Your task to perform on an android device: change the clock display to analog Image 0: 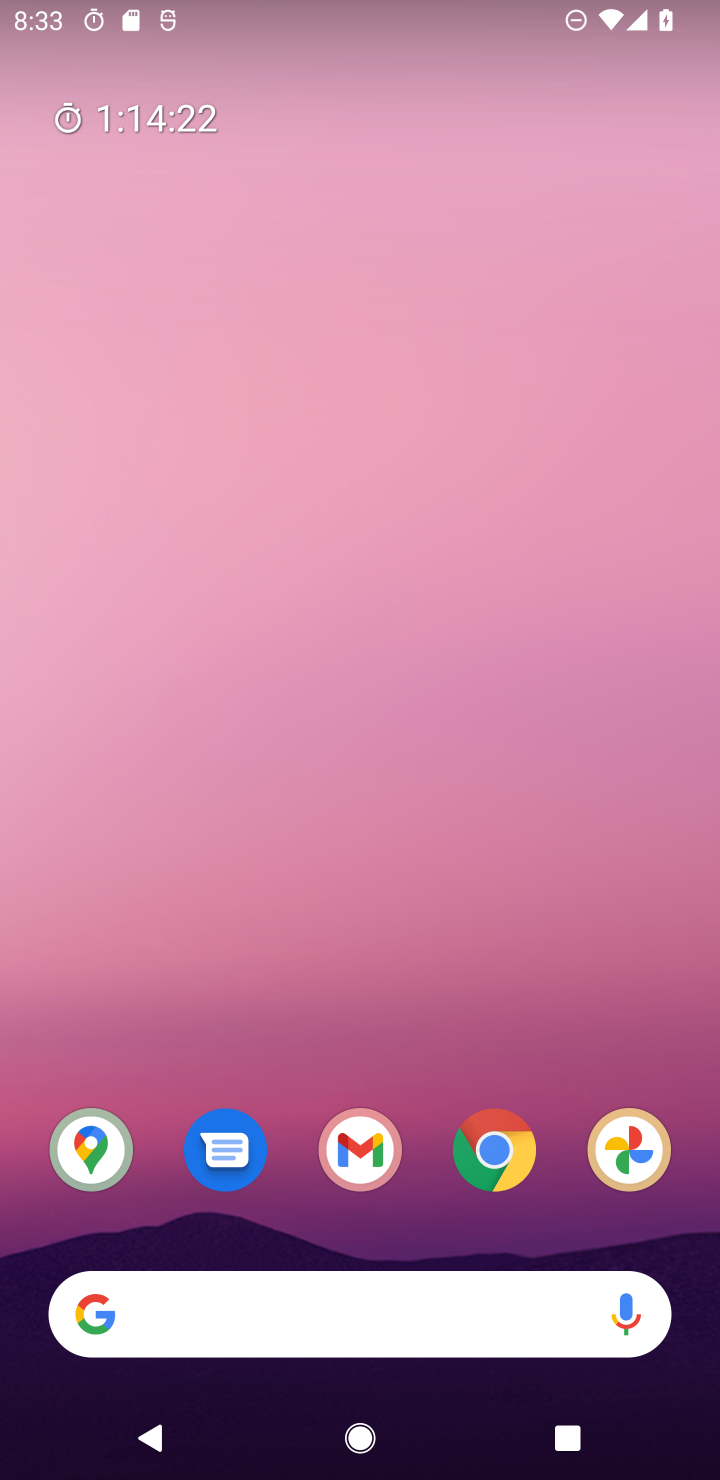
Step 0: drag from (456, 1335) to (302, 28)
Your task to perform on an android device: change the clock display to analog Image 1: 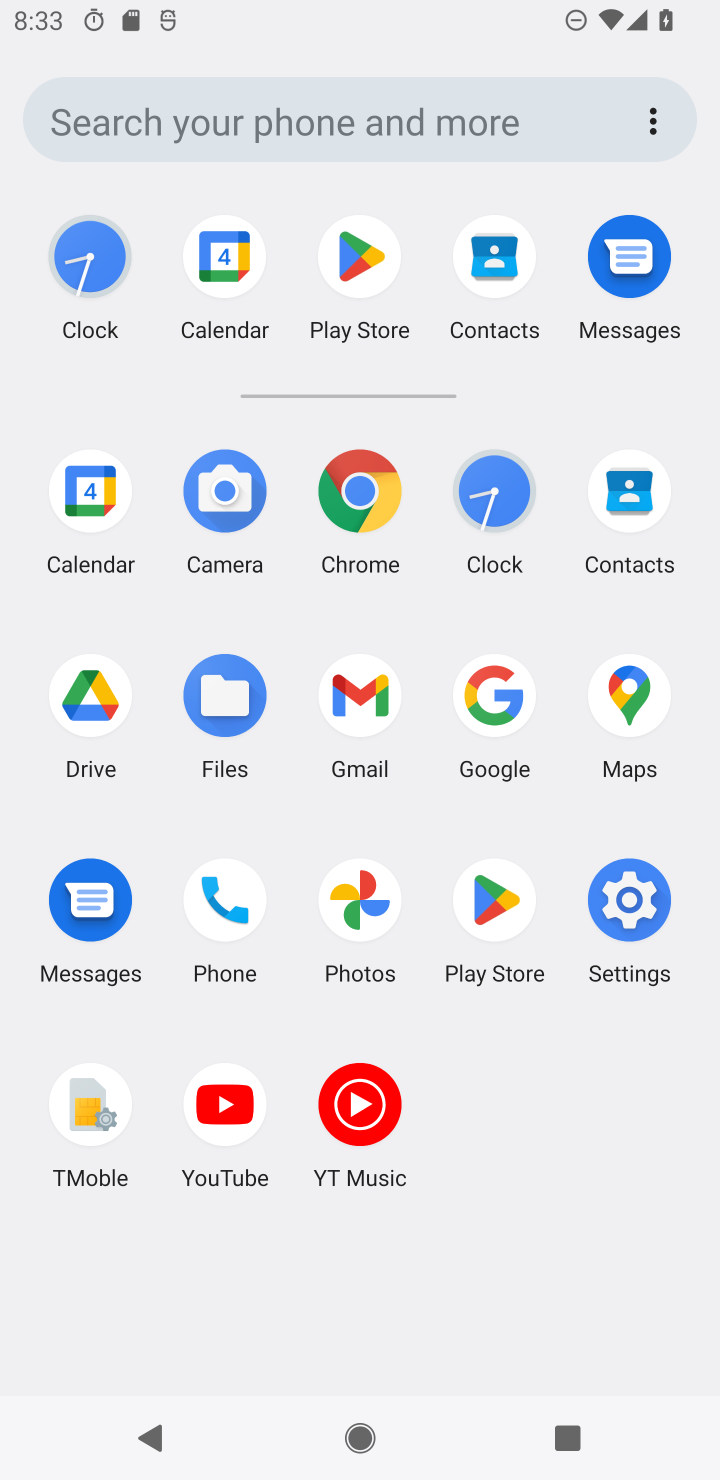
Step 1: click (628, 918)
Your task to perform on an android device: change the clock display to analog Image 2: 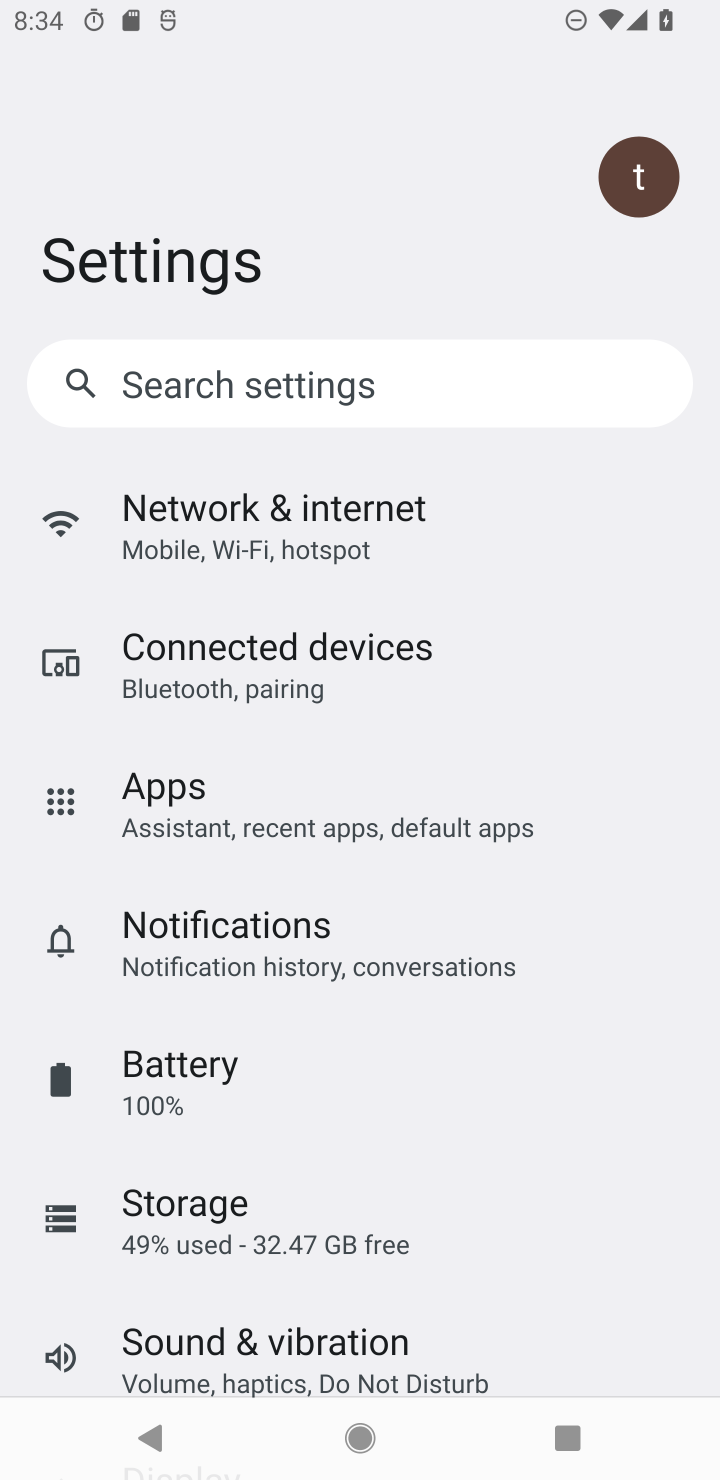
Step 2: press home button
Your task to perform on an android device: change the clock display to analog Image 3: 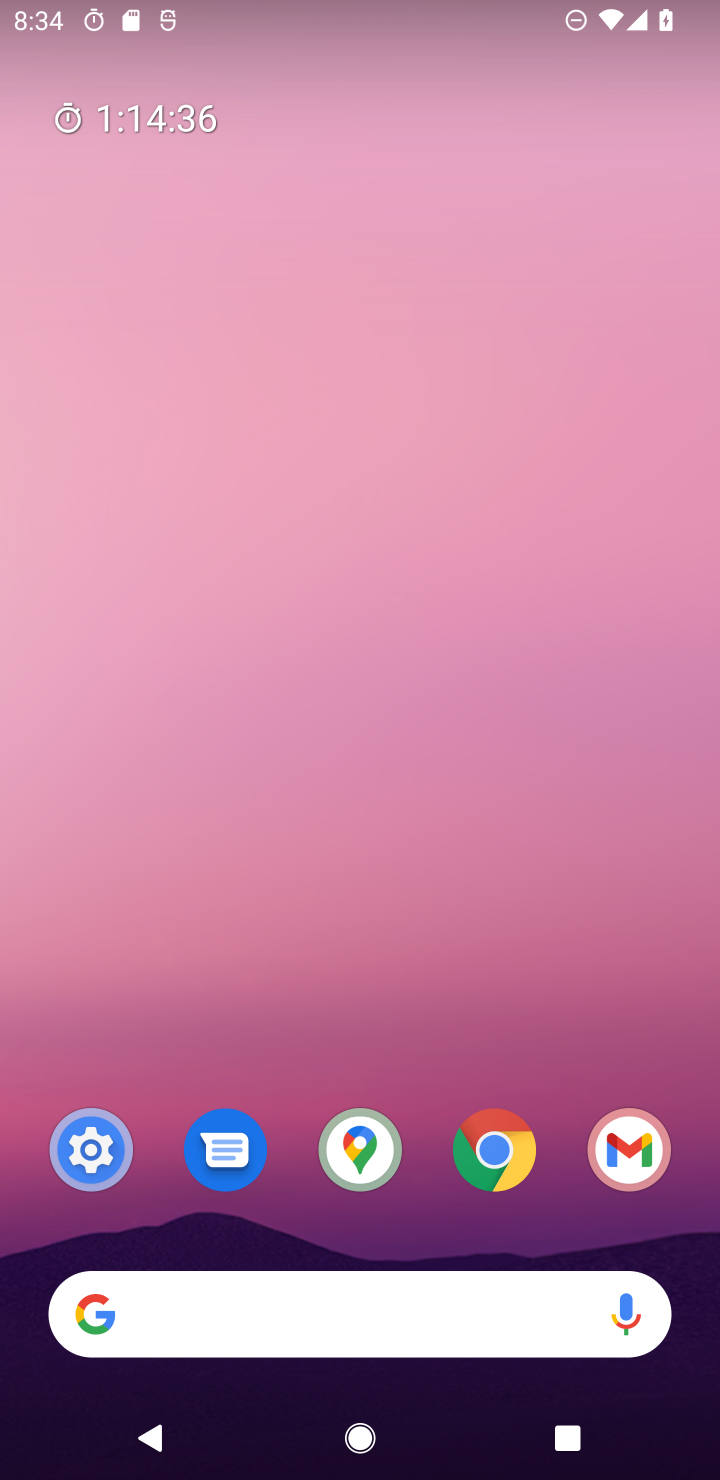
Step 3: drag from (213, 1243) to (84, 14)
Your task to perform on an android device: change the clock display to analog Image 4: 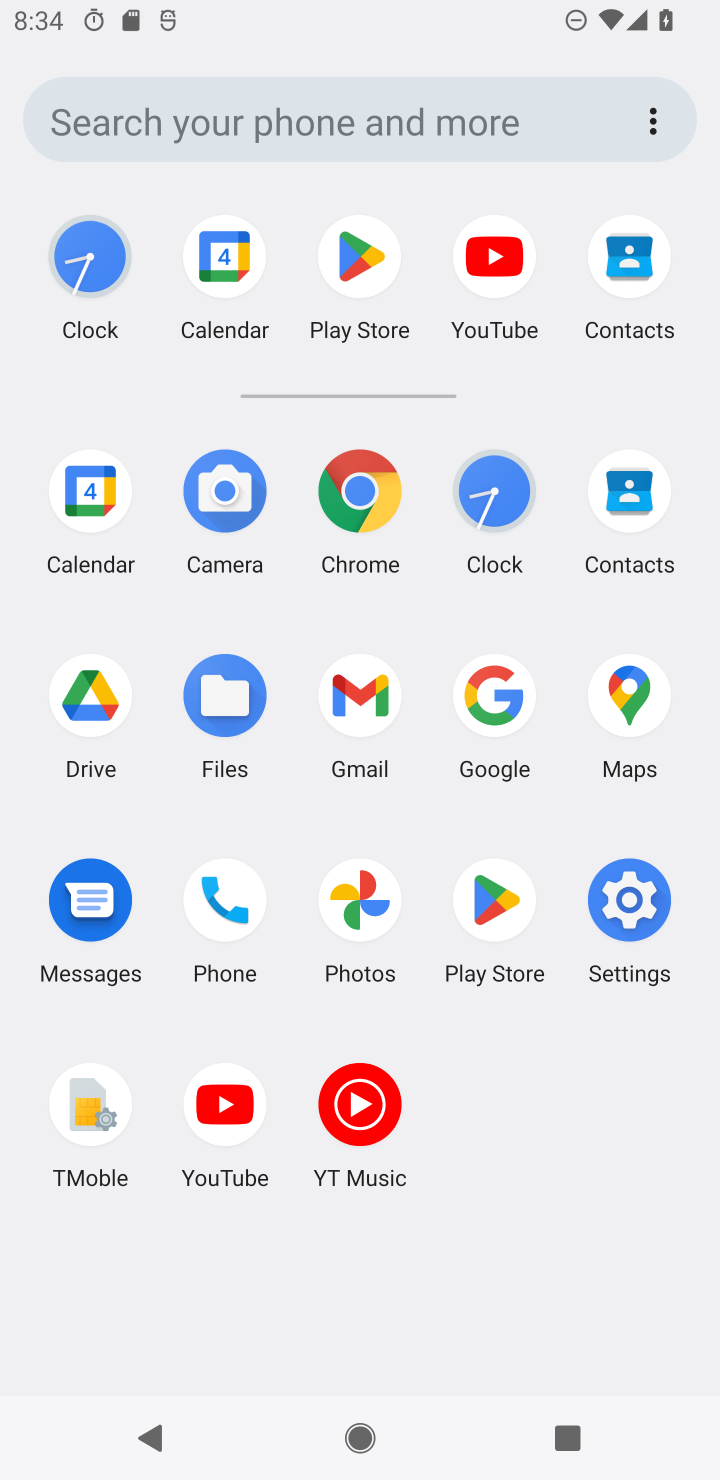
Step 4: click (494, 482)
Your task to perform on an android device: change the clock display to analog Image 5: 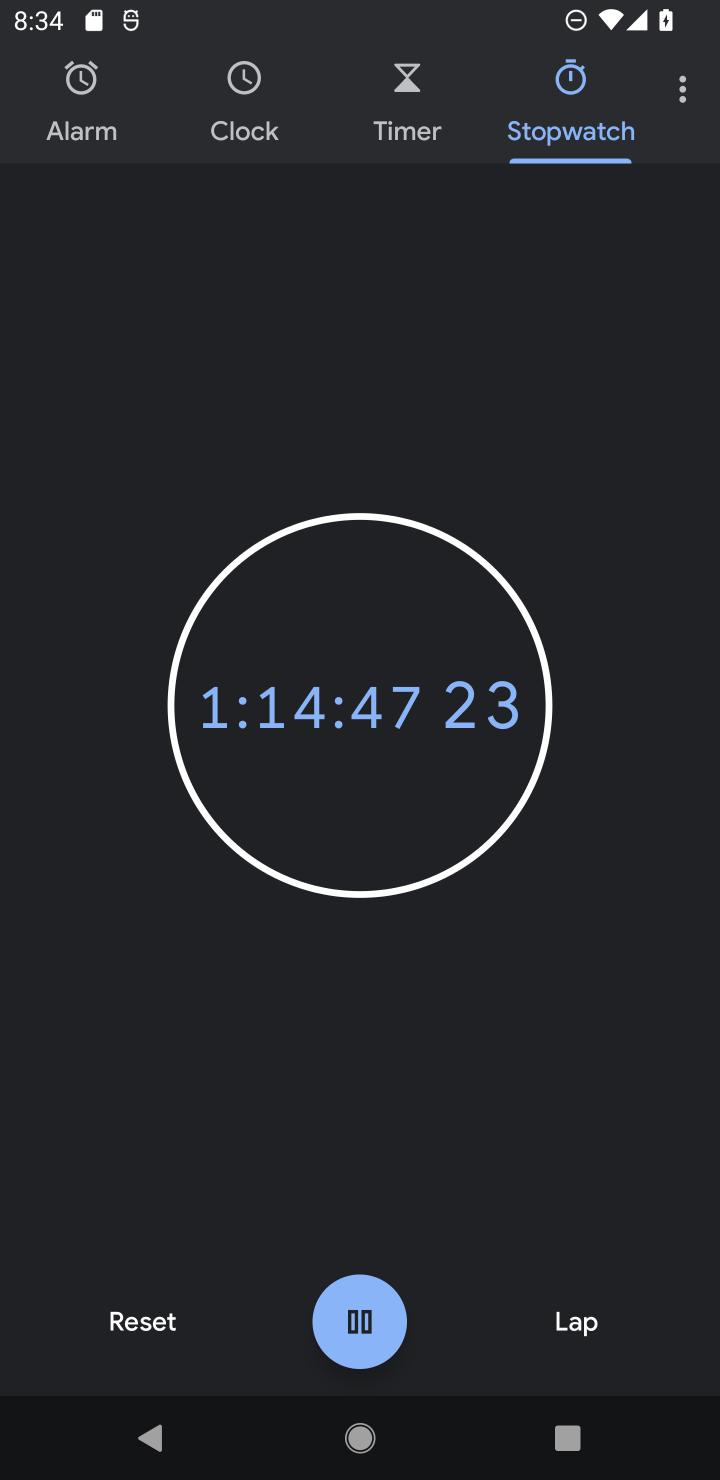
Step 5: click (681, 85)
Your task to perform on an android device: change the clock display to analog Image 6: 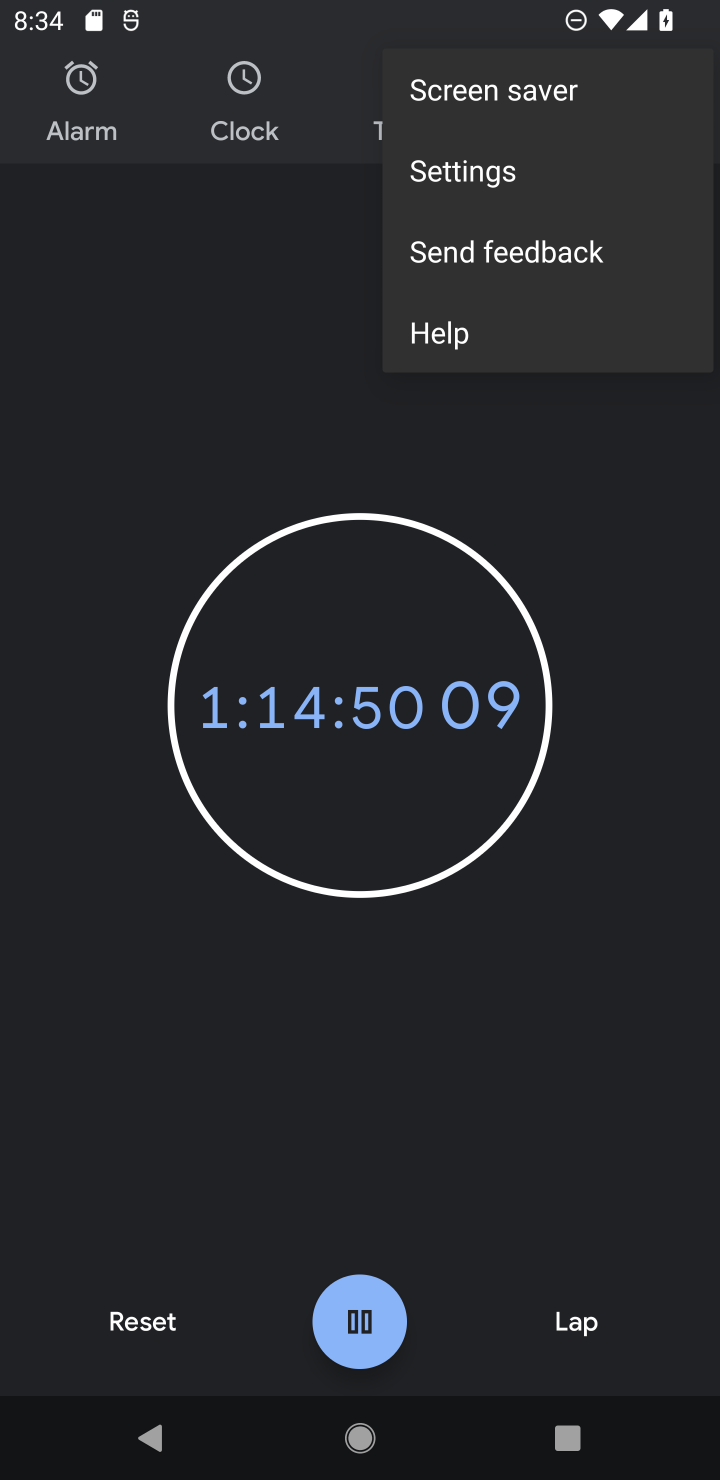
Step 6: click (502, 175)
Your task to perform on an android device: change the clock display to analog Image 7: 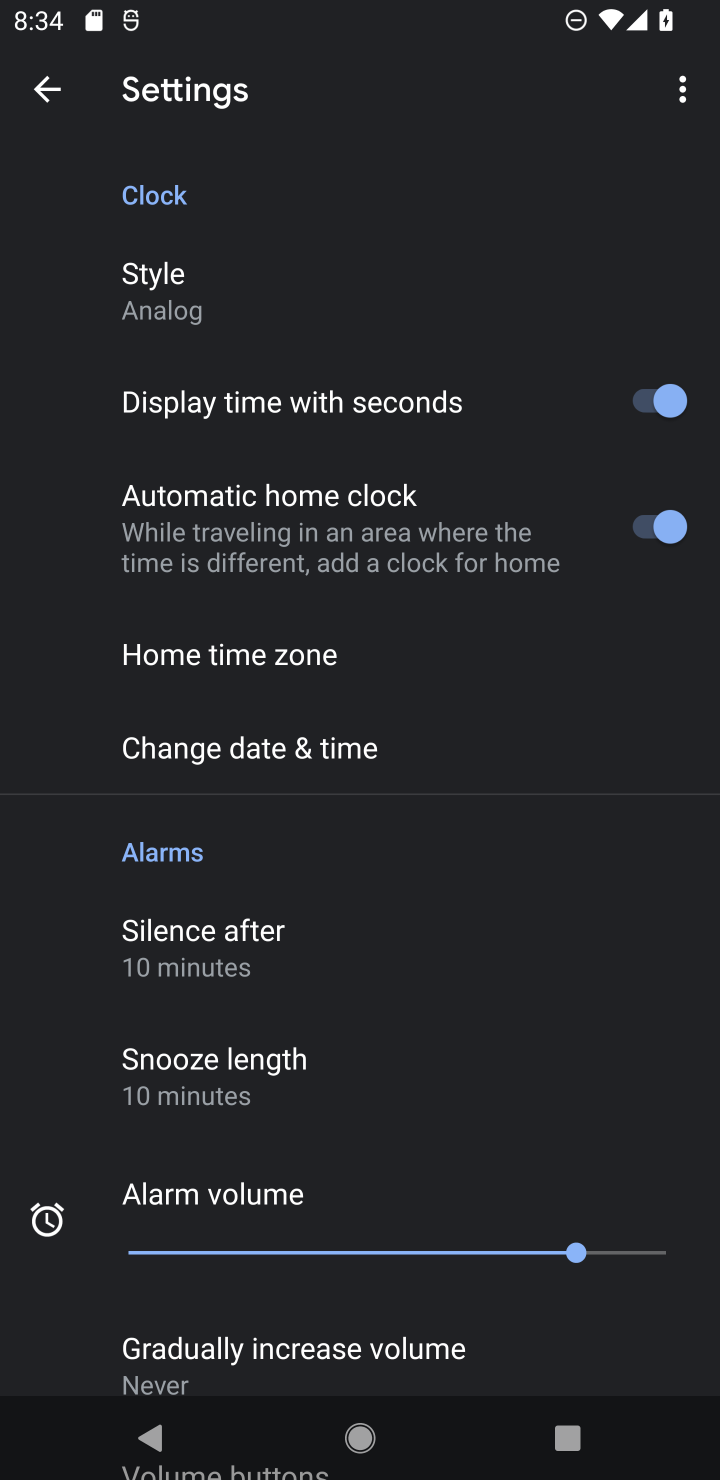
Step 7: click (191, 277)
Your task to perform on an android device: change the clock display to analog Image 8: 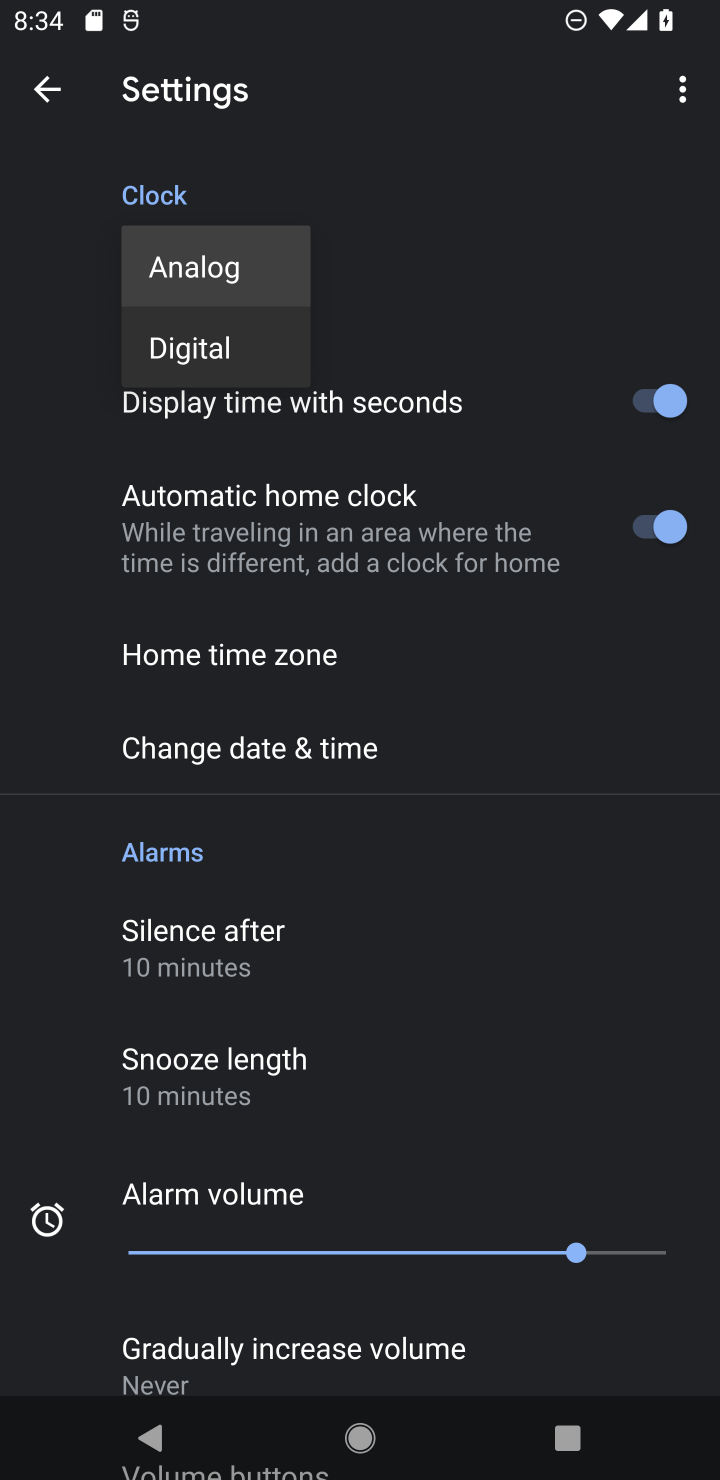
Step 8: click (191, 322)
Your task to perform on an android device: change the clock display to analog Image 9: 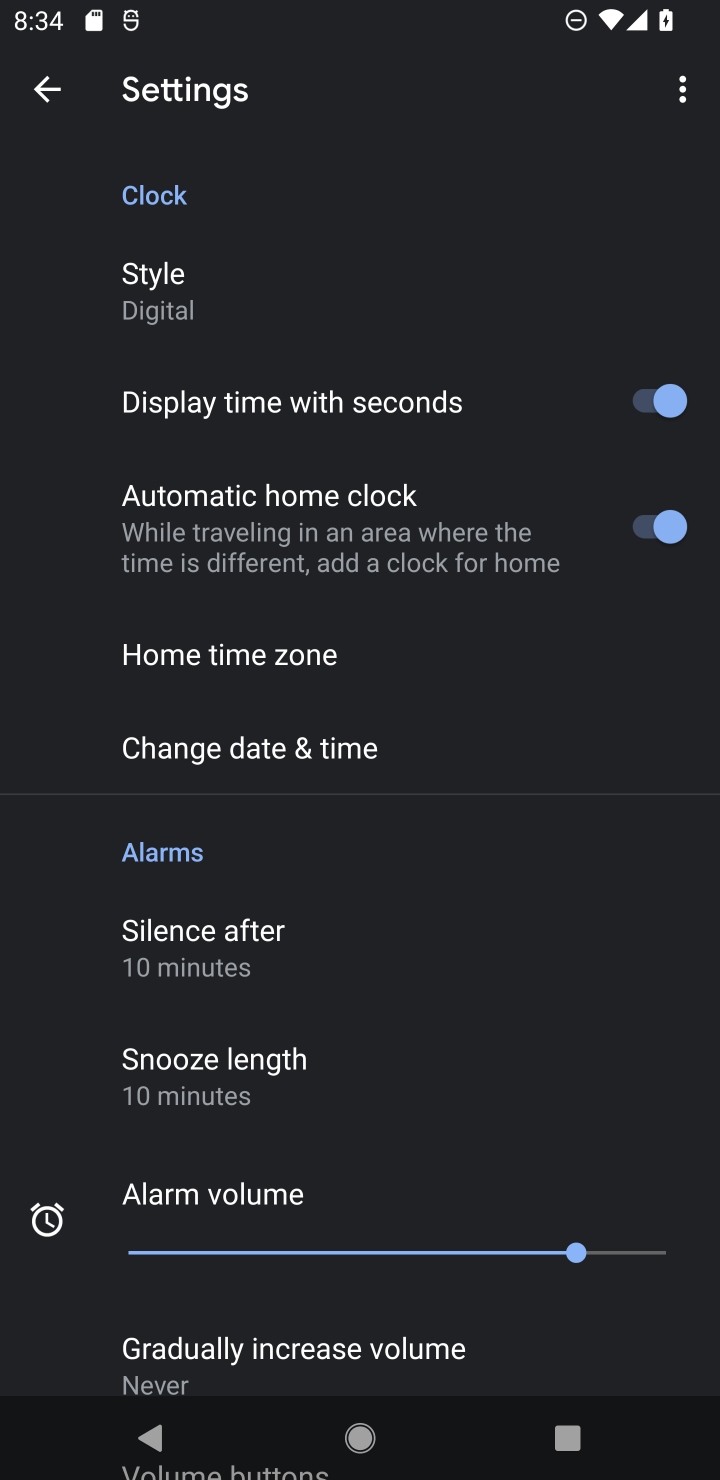
Step 9: task complete